Your task to perform on an android device: Go to Maps Image 0: 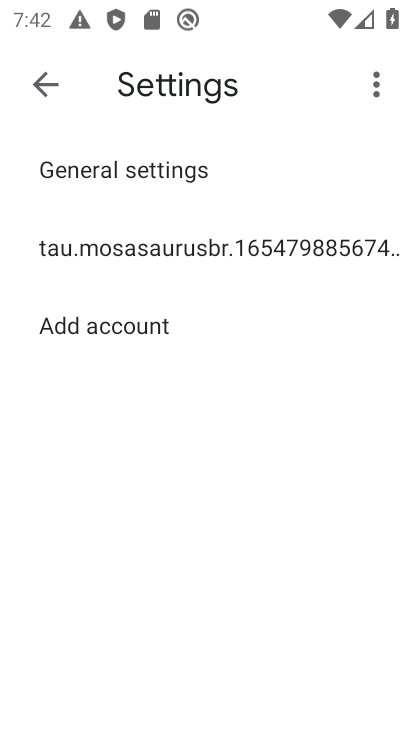
Step 0: press home button
Your task to perform on an android device: Go to Maps Image 1: 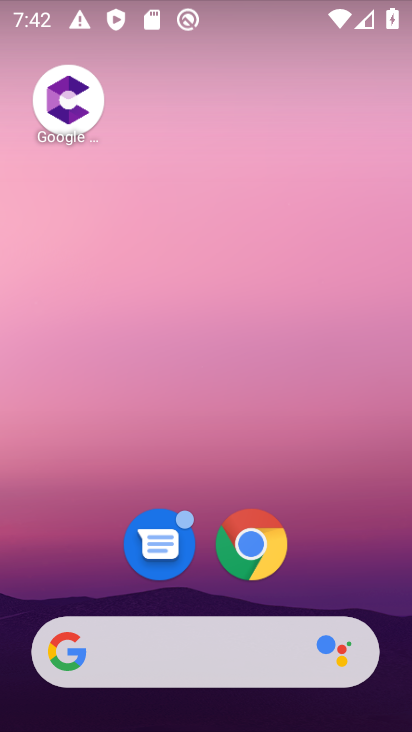
Step 1: drag from (187, 613) to (183, 187)
Your task to perform on an android device: Go to Maps Image 2: 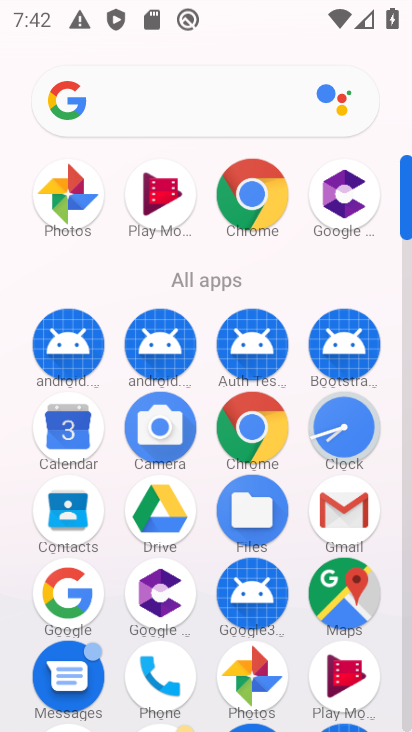
Step 2: drag from (190, 645) to (181, 405)
Your task to perform on an android device: Go to Maps Image 3: 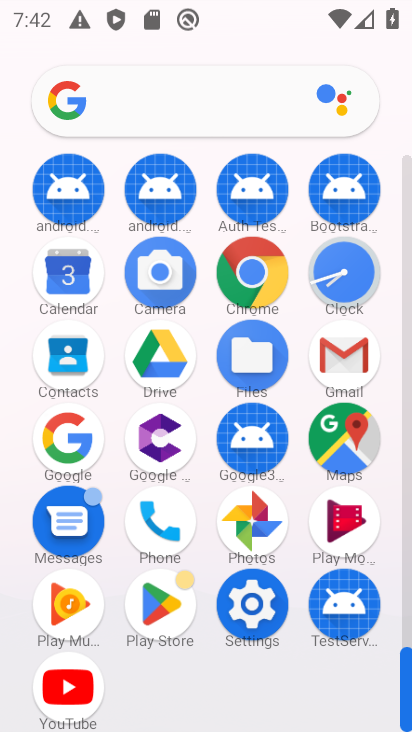
Step 3: click (352, 426)
Your task to perform on an android device: Go to Maps Image 4: 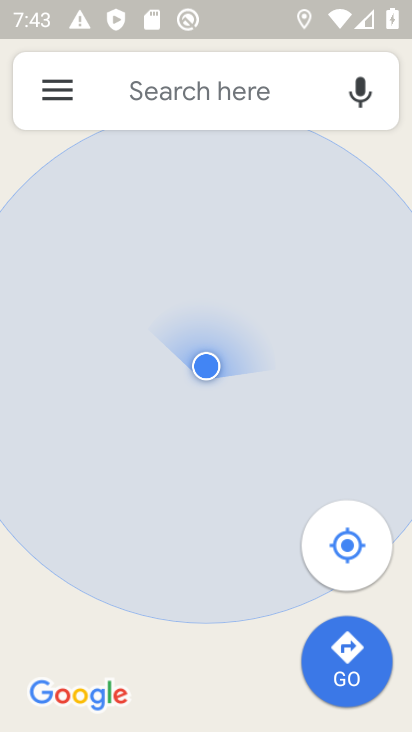
Step 4: task complete